Your task to perform on an android device: turn pop-ups on in chrome Image 0: 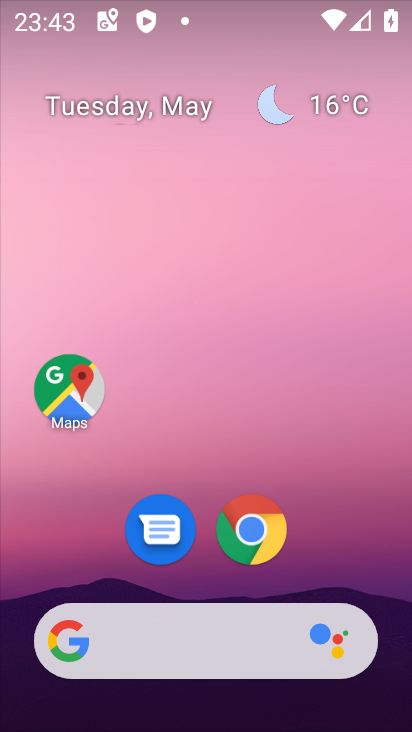
Step 0: click (267, 549)
Your task to perform on an android device: turn pop-ups on in chrome Image 1: 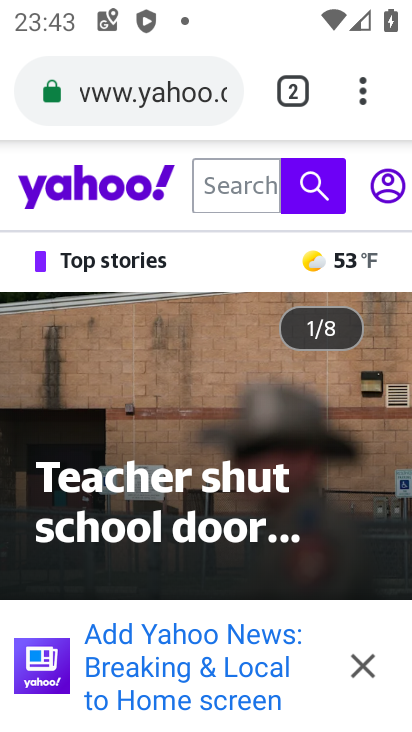
Step 1: drag from (370, 80) to (183, 555)
Your task to perform on an android device: turn pop-ups on in chrome Image 2: 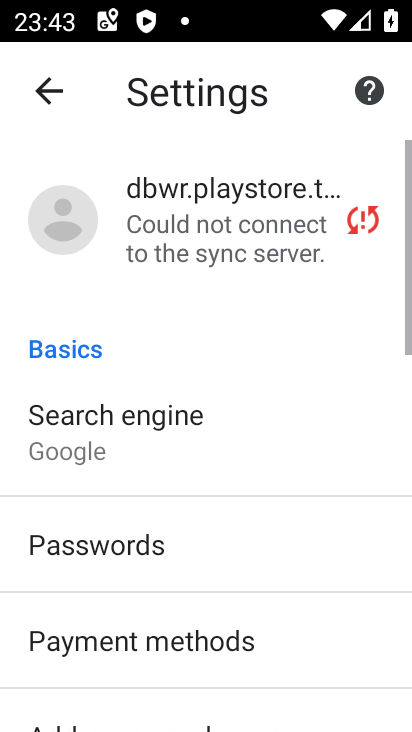
Step 2: drag from (167, 605) to (298, 201)
Your task to perform on an android device: turn pop-ups on in chrome Image 3: 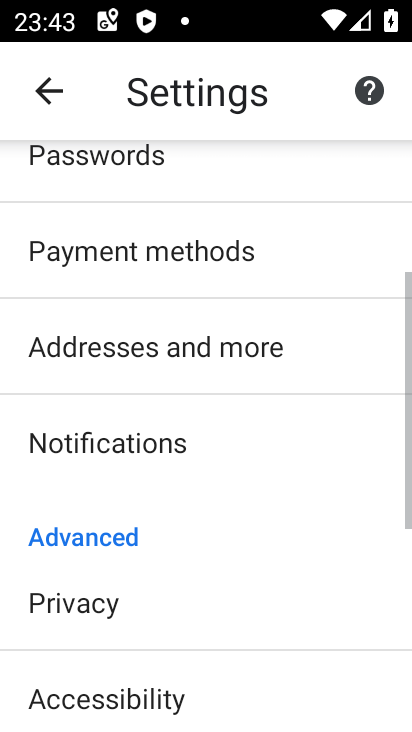
Step 3: drag from (221, 618) to (319, 203)
Your task to perform on an android device: turn pop-ups on in chrome Image 4: 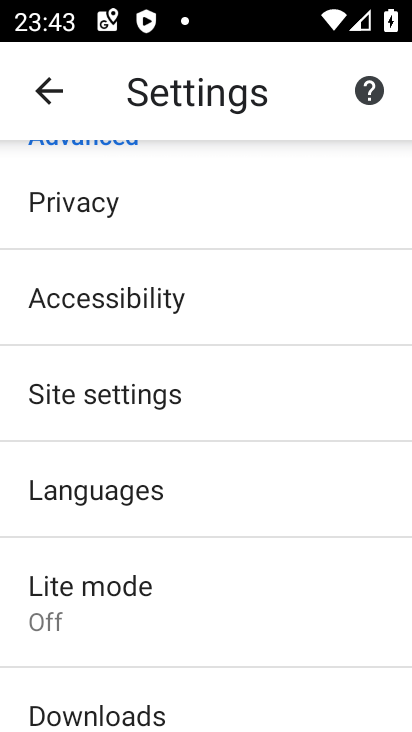
Step 4: click (196, 399)
Your task to perform on an android device: turn pop-ups on in chrome Image 5: 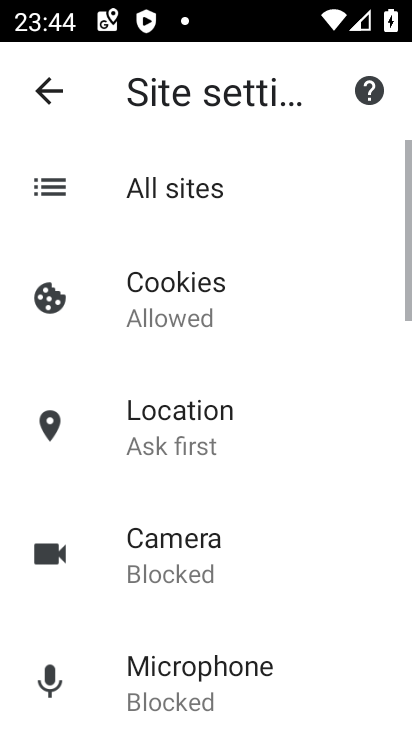
Step 5: drag from (181, 588) to (283, 177)
Your task to perform on an android device: turn pop-ups on in chrome Image 6: 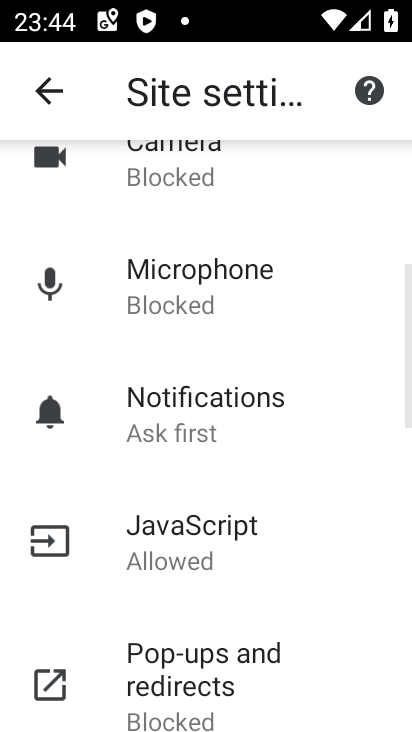
Step 6: click (185, 642)
Your task to perform on an android device: turn pop-ups on in chrome Image 7: 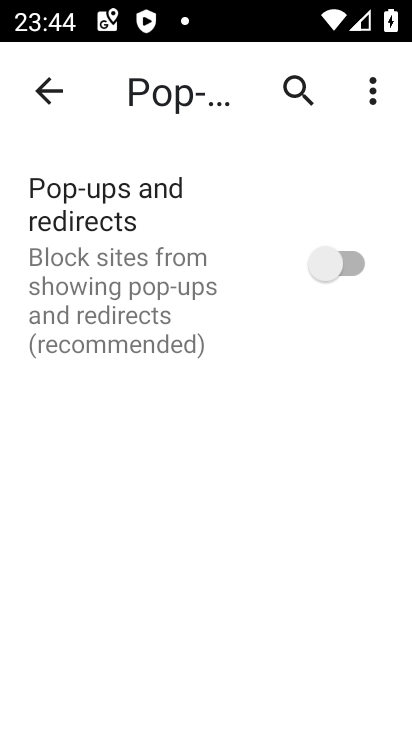
Step 7: click (374, 266)
Your task to perform on an android device: turn pop-ups on in chrome Image 8: 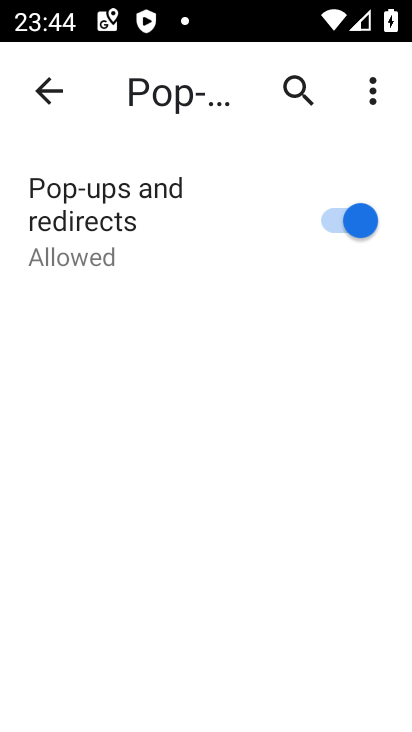
Step 8: task complete